Your task to perform on an android device: add a contact in the contacts app Image 0: 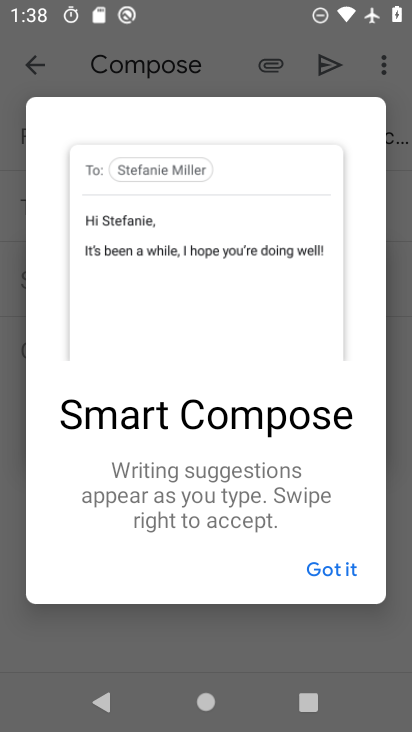
Step 0: press home button
Your task to perform on an android device: add a contact in the contacts app Image 1: 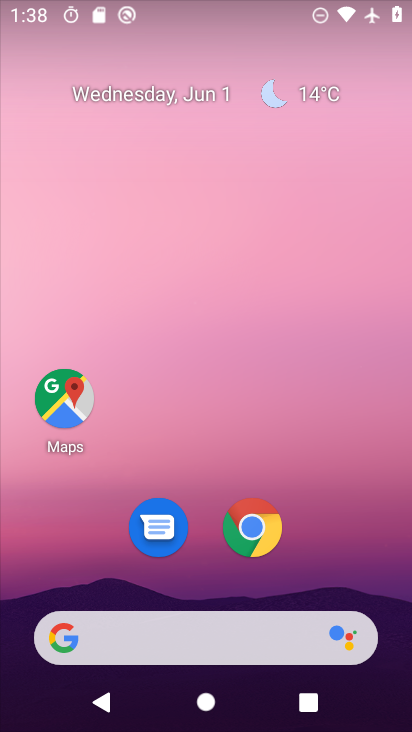
Step 1: drag from (214, 638) to (271, 188)
Your task to perform on an android device: add a contact in the contacts app Image 2: 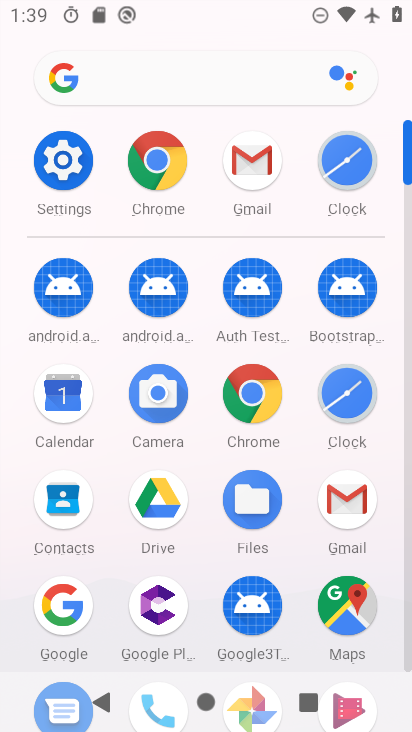
Step 2: click (75, 515)
Your task to perform on an android device: add a contact in the contacts app Image 3: 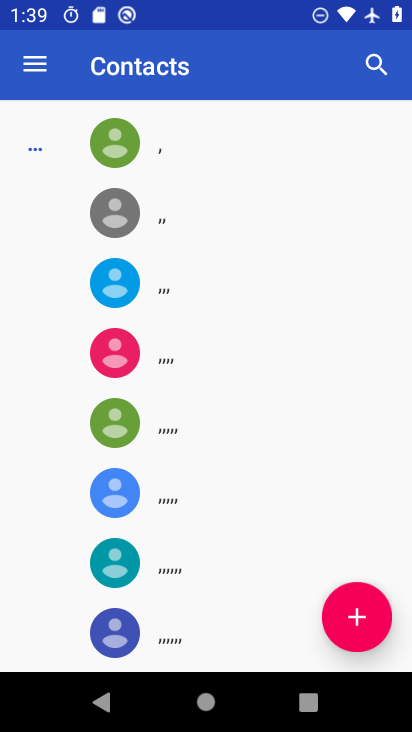
Step 3: click (362, 631)
Your task to perform on an android device: add a contact in the contacts app Image 4: 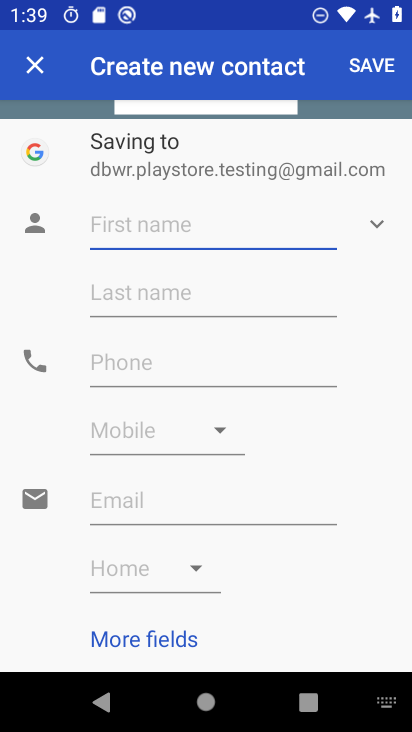
Step 4: type "nknk"
Your task to perform on an android device: add a contact in the contacts app Image 5: 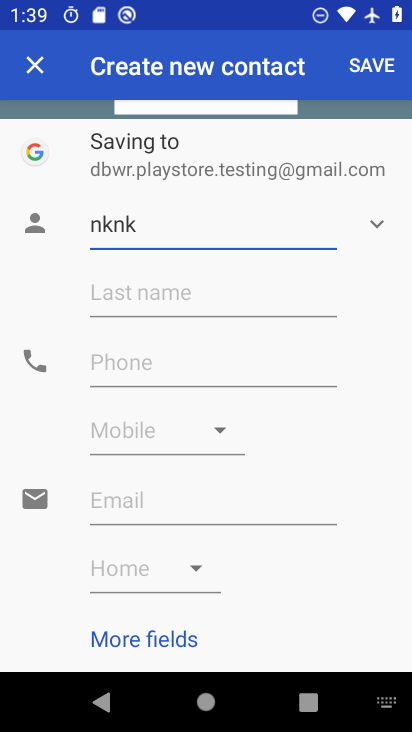
Step 5: click (175, 346)
Your task to perform on an android device: add a contact in the contacts app Image 6: 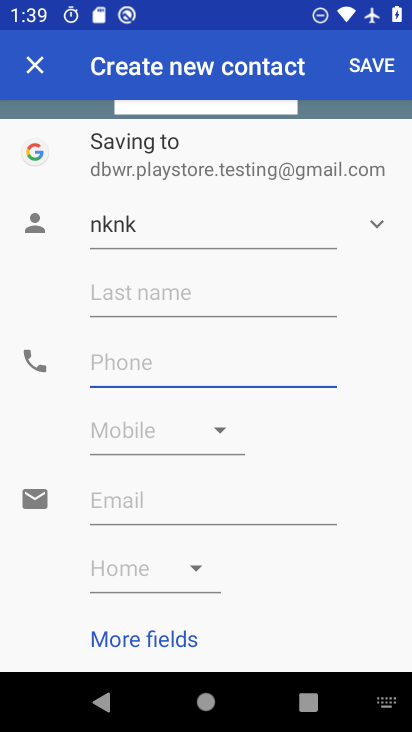
Step 6: type "87987089"
Your task to perform on an android device: add a contact in the contacts app Image 7: 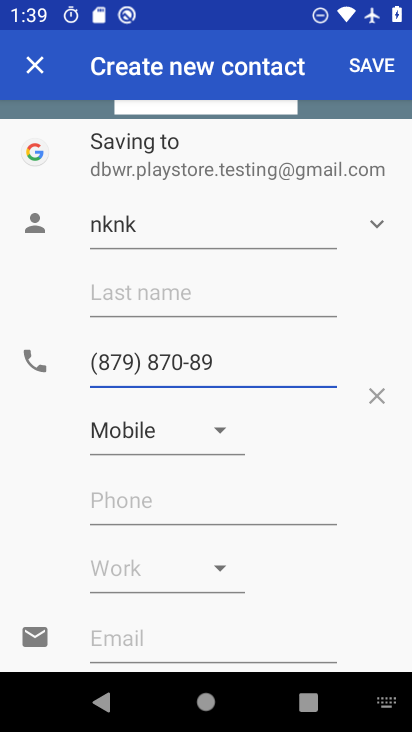
Step 7: click (386, 70)
Your task to perform on an android device: add a contact in the contacts app Image 8: 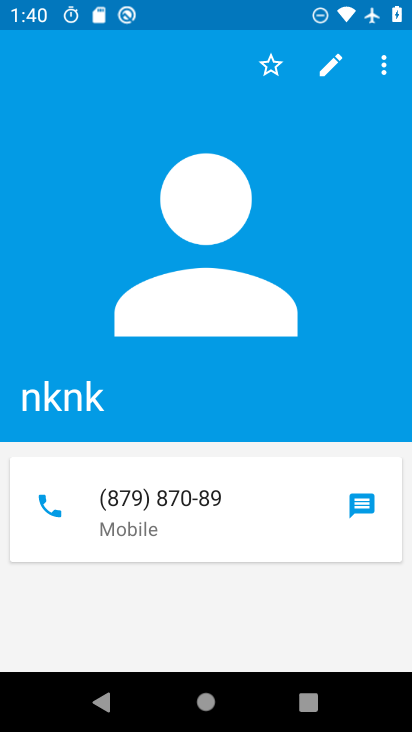
Step 8: task complete